Your task to perform on an android device: toggle sleep mode Image 0: 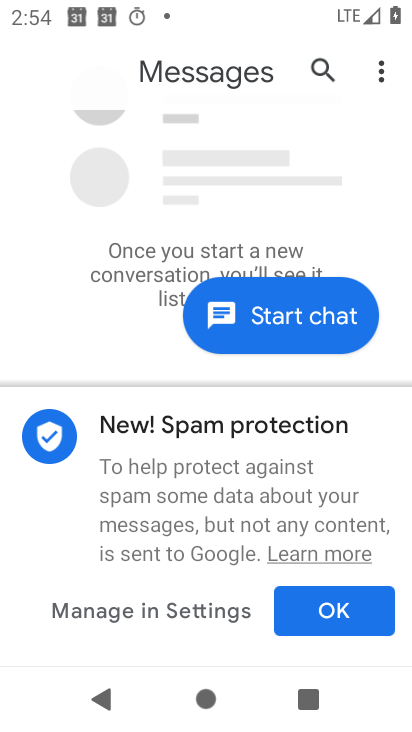
Step 0: press home button
Your task to perform on an android device: toggle sleep mode Image 1: 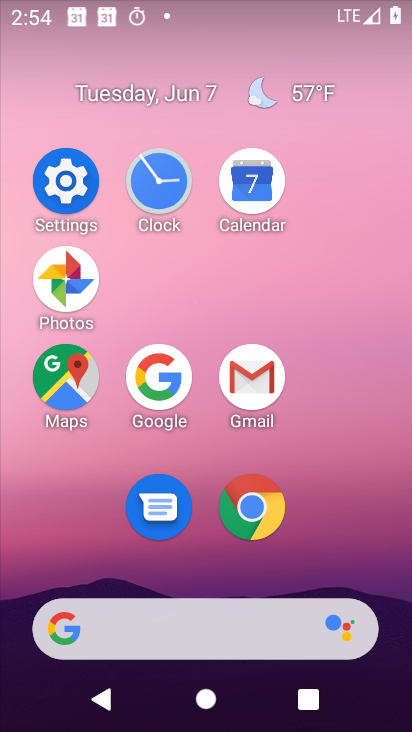
Step 1: click (63, 212)
Your task to perform on an android device: toggle sleep mode Image 2: 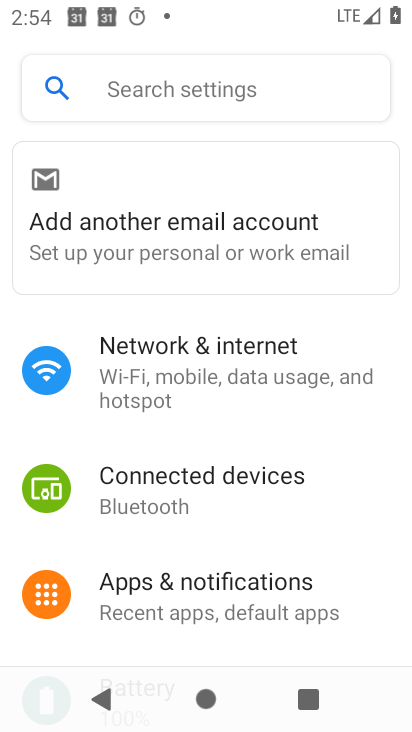
Step 2: drag from (309, 579) to (309, 238)
Your task to perform on an android device: toggle sleep mode Image 3: 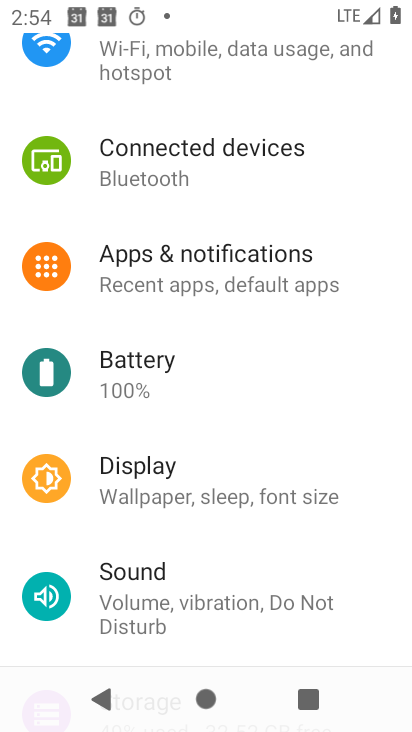
Step 3: click (228, 496)
Your task to perform on an android device: toggle sleep mode Image 4: 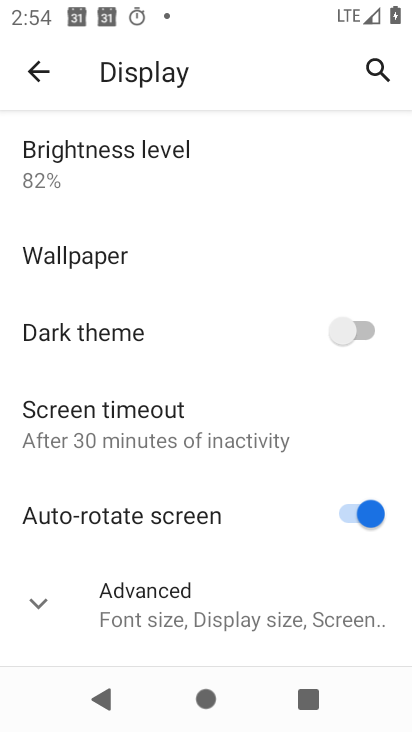
Step 4: click (217, 404)
Your task to perform on an android device: toggle sleep mode Image 5: 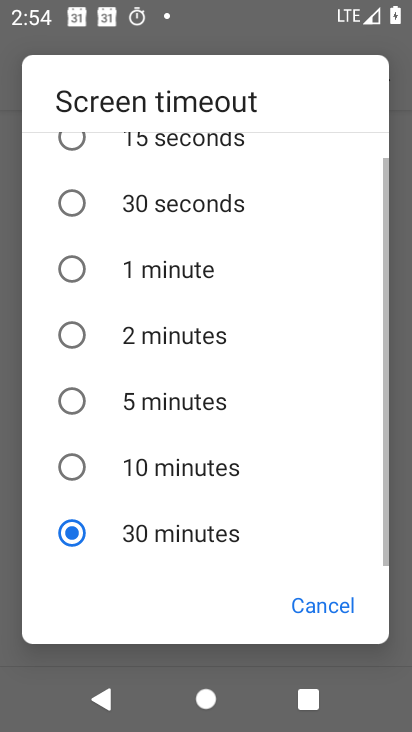
Step 5: click (191, 350)
Your task to perform on an android device: toggle sleep mode Image 6: 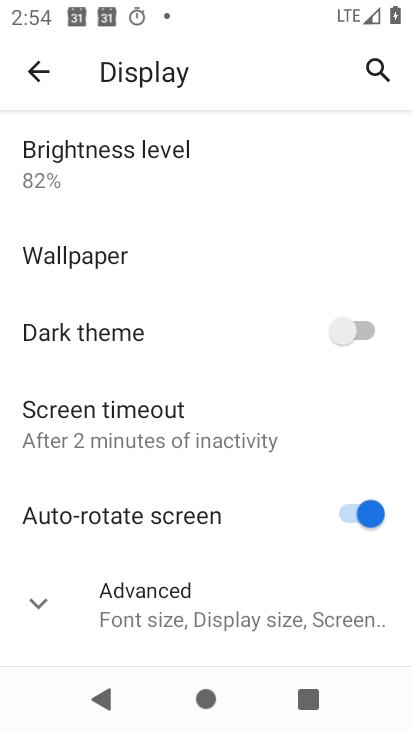
Step 6: task complete